Your task to perform on an android device: When is my next appointment? Image 0: 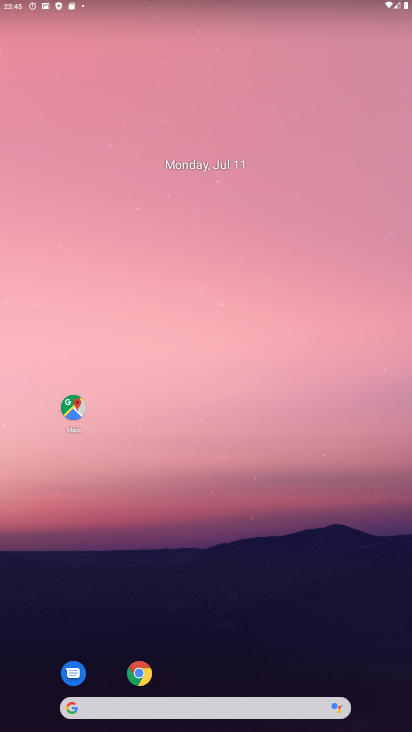
Step 0: press home button
Your task to perform on an android device: When is my next appointment? Image 1: 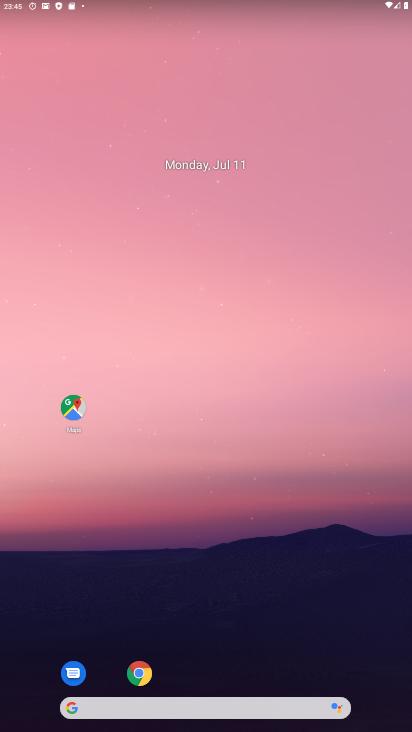
Step 1: drag from (258, 596) to (257, 195)
Your task to perform on an android device: When is my next appointment? Image 2: 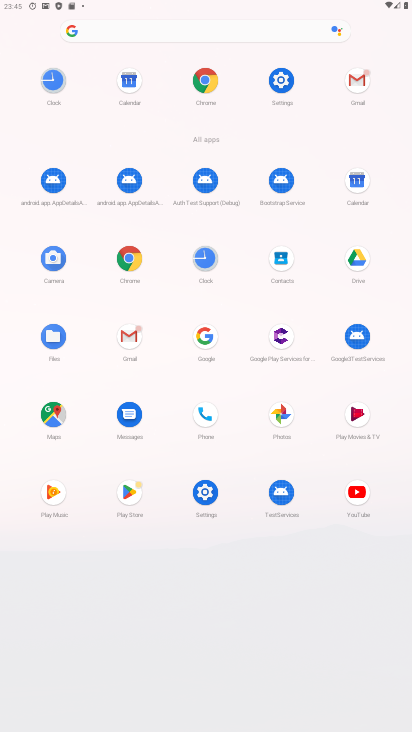
Step 2: click (357, 178)
Your task to perform on an android device: When is my next appointment? Image 3: 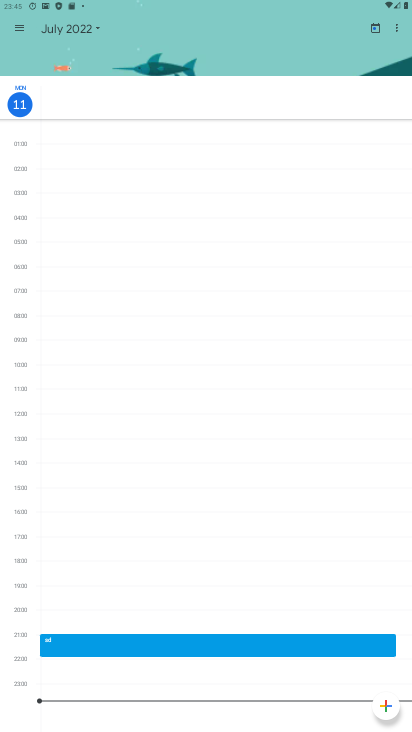
Step 3: click (19, 30)
Your task to perform on an android device: When is my next appointment? Image 4: 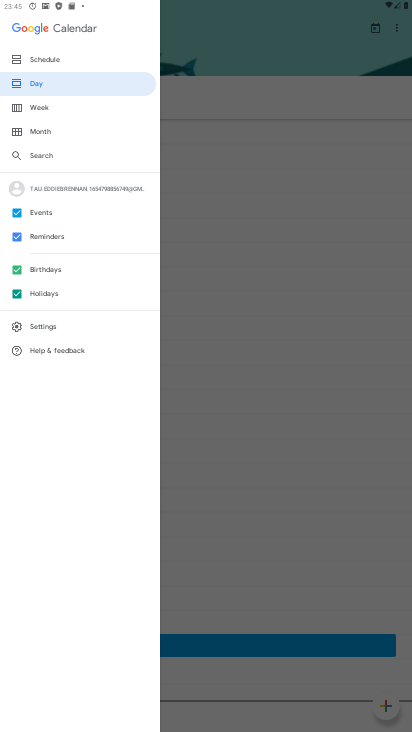
Step 4: click (44, 59)
Your task to perform on an android device: When is my next appointment? Image 5: 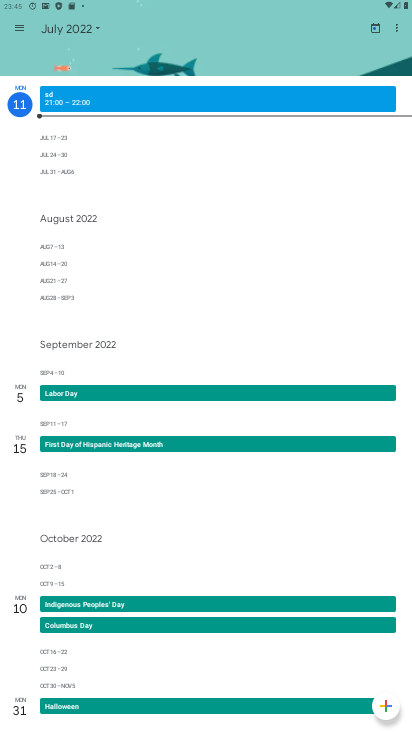
Step 5: task complete